Your task to perform on an android device: toggle javascript in the chrome app Image 0: 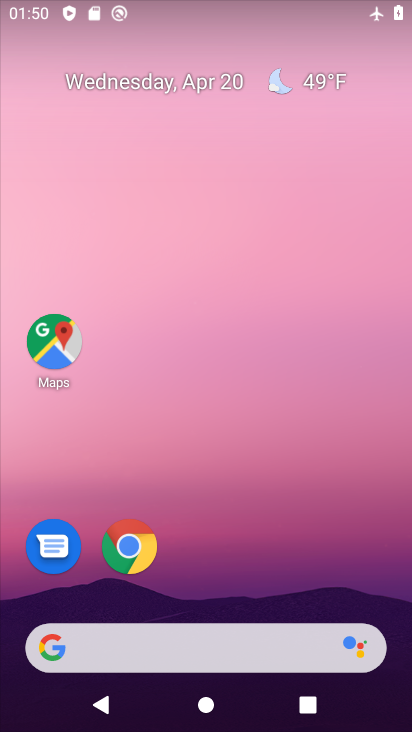
Step 0: drag from (219, 470) to (294, 300)
Your task to perform on an android device: toggle javascript in the chrome app Image 1: 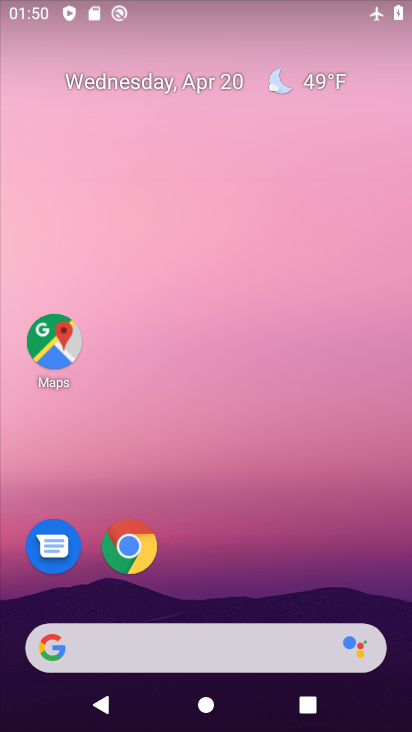
Step 1: drag from (251, 574) to (361, 172)
Your task to perform on an android device: toggle javascript in the chrome app Image 2: 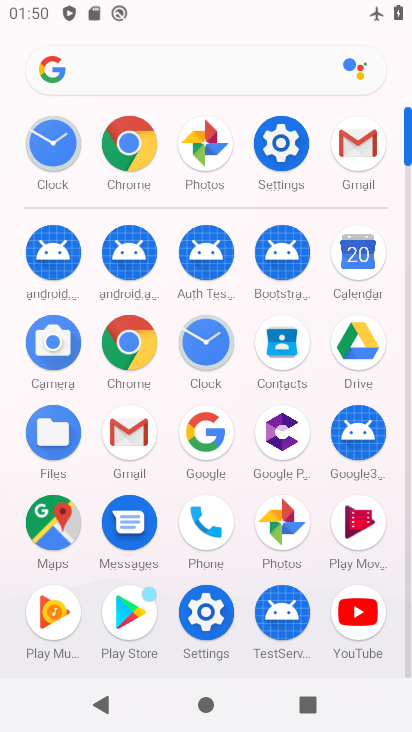
Step 2: click (131, 150)
Your task to perform on an android device: toggle javascript in the chrome app Image 3: 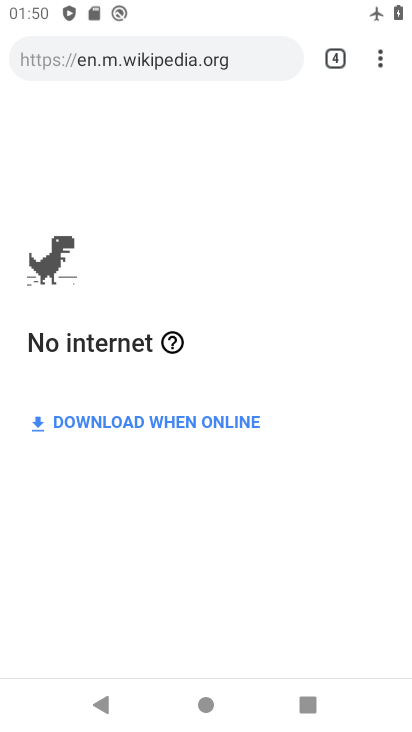
Step 3: click (378, 50)
Your task to perform on an android device: toggle javascript in the chrome app Image 4: 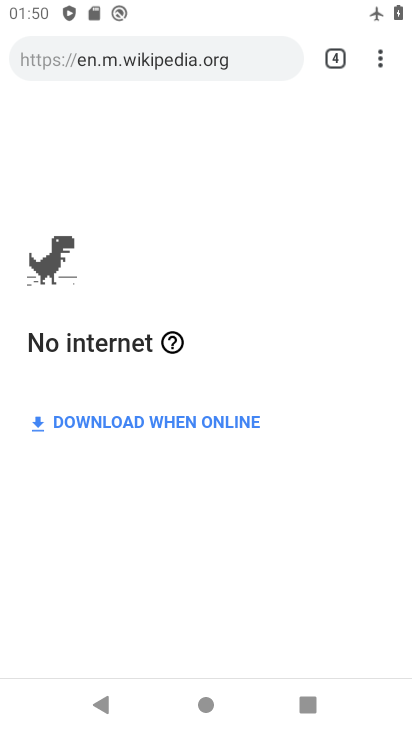
Step 4: click (382, 56)
Your task to perform on an android device: toggle javascript in the chrome app Image 5: 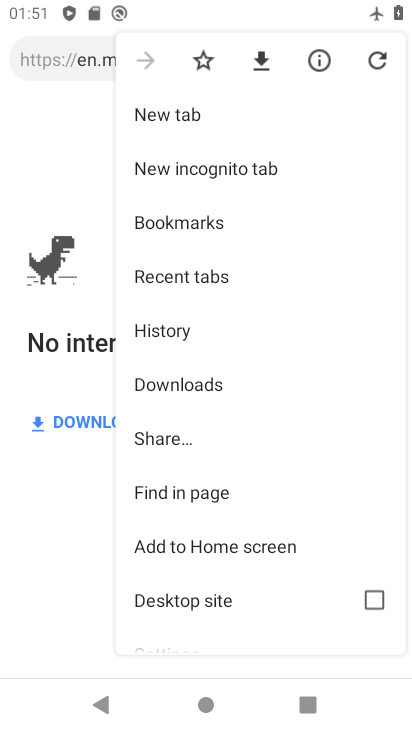
Step 5: drag from (224, 453) to (276, 162)
Your task to perform on an android device: toggle javascript in the chrome app Image 6: 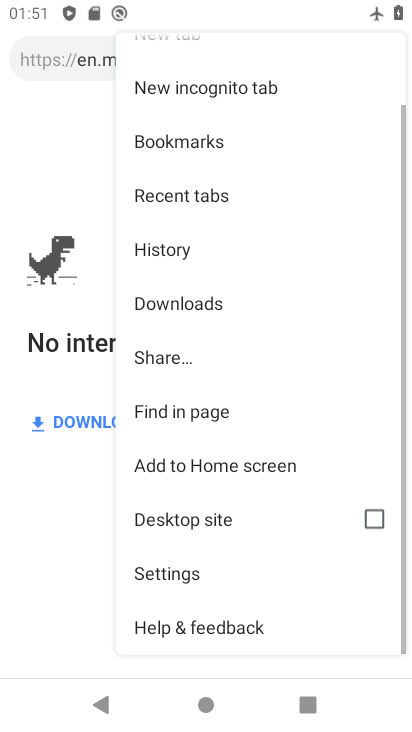
Step 6: click (178, 576)
Your task to perform on an android device: toggle javascript in the chrome app Image 7: 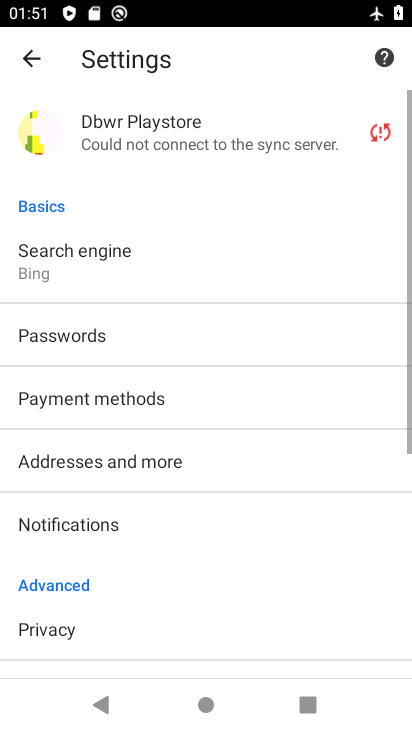
Step 7: drag from (187, 636) to (272, 234)
Your task to perform on an android device: toggle javascript in the chrome app Image 8: 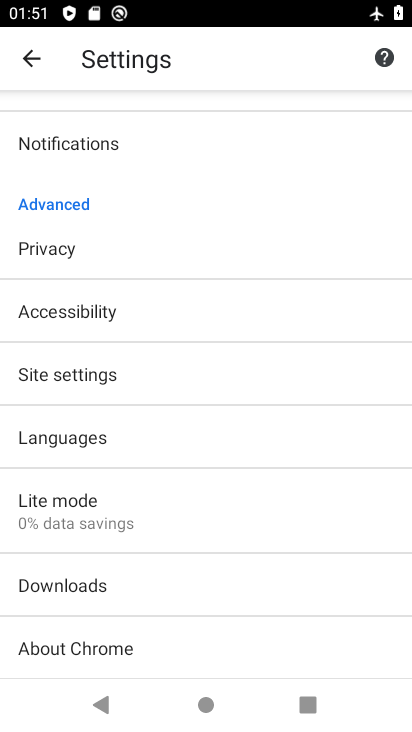
Step 8: click (150, 378)
Your task to perform on an android device: toggle javascript in the chrome app Image 9: 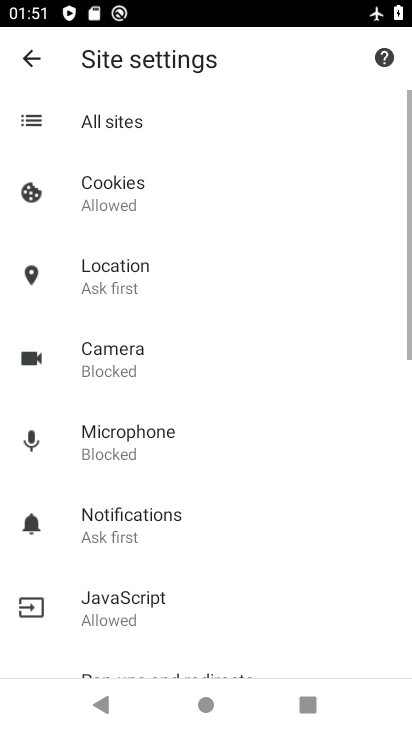
Step 9: click (158, 616)
Your task to perform on an android device: toggle javascript in the chrome app Image 10: 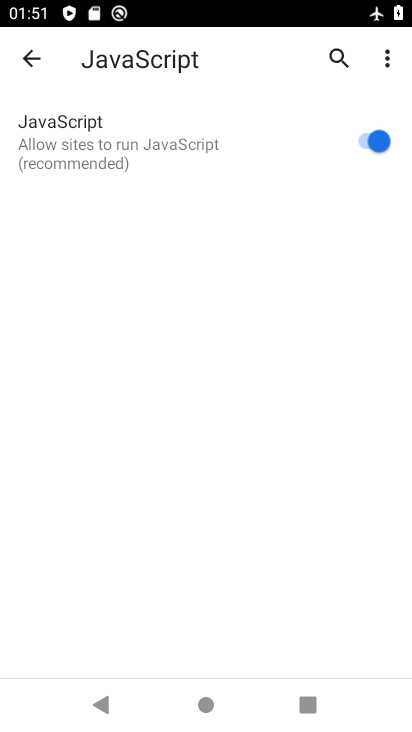
Step 10: click (359, 145)
Your task to perform on an android device: toggle javascript in the chrome app Image 11: 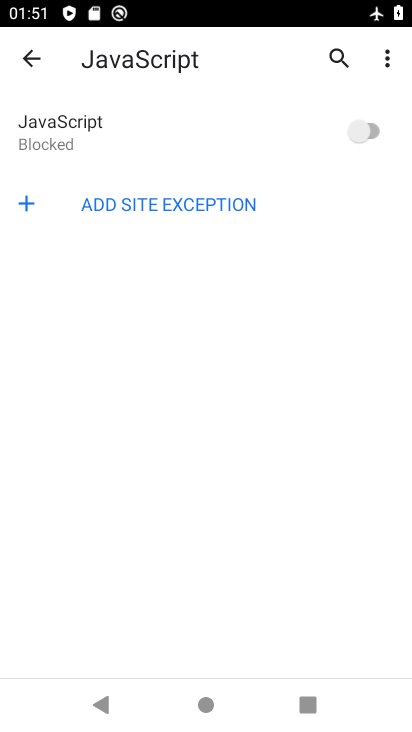
Step 11: task complete